Your task to perform on an android device: Go to sound settings Image 0: 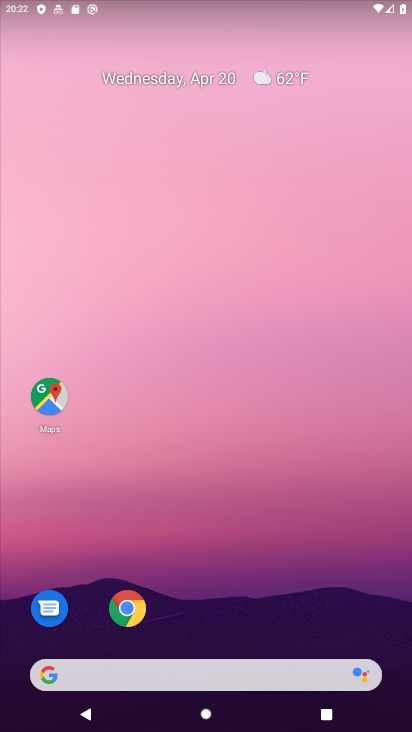
Step 0: drag from (228, 589) to (332, 6)
Your task to perform on an android device: Go to sound settings Image 1: 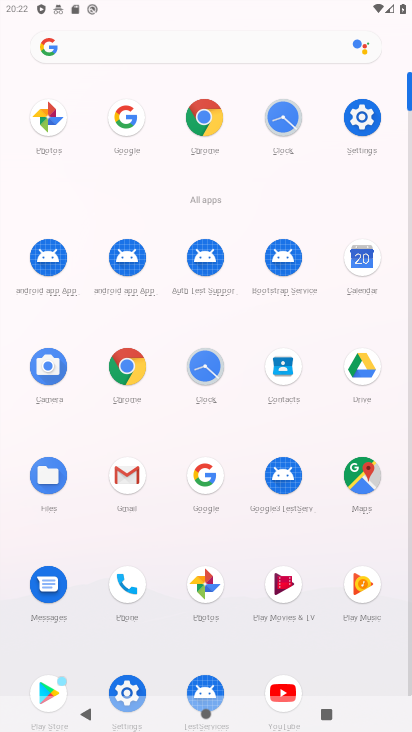
Step 1: click (351, 121)
Your task to perform on an android device: Go to sound settings Image 2: 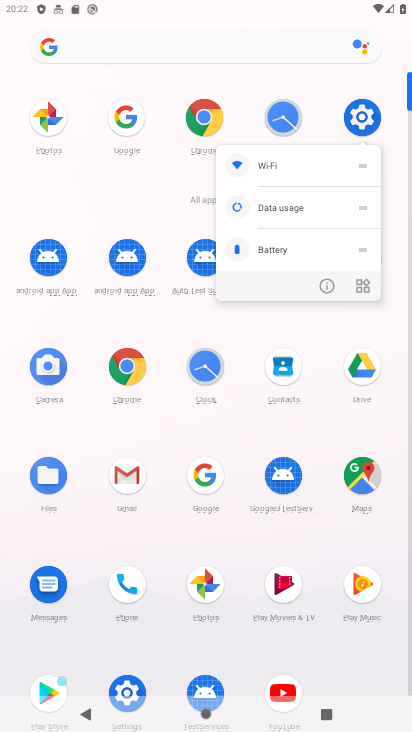
Step 2: click (351, 121)
Your task to perform on an android device: Go to sound settings Image 3: 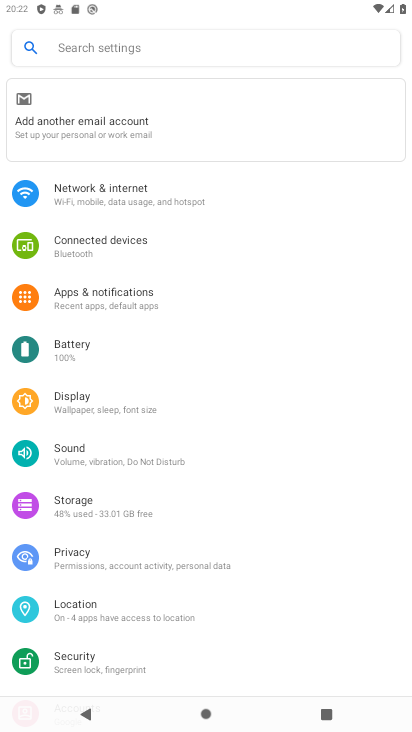
Step 3: click (50, 460)
Your task to perform on an android device: Go to sound settings Image 4: 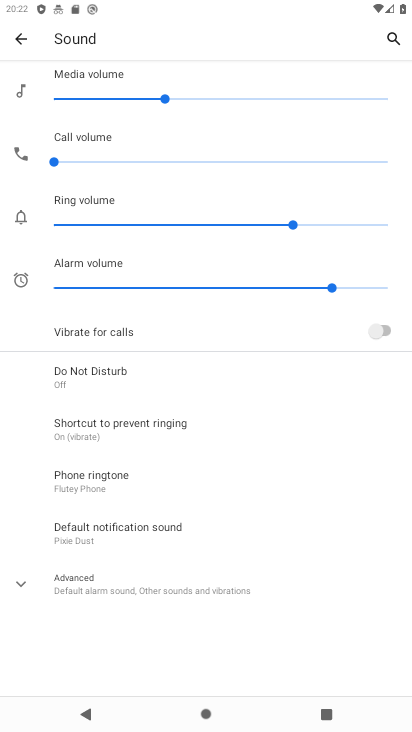
Step 4: task complete